Your task to perform on an android device: read, delete, or share a saved page in the chrome app Image 0: 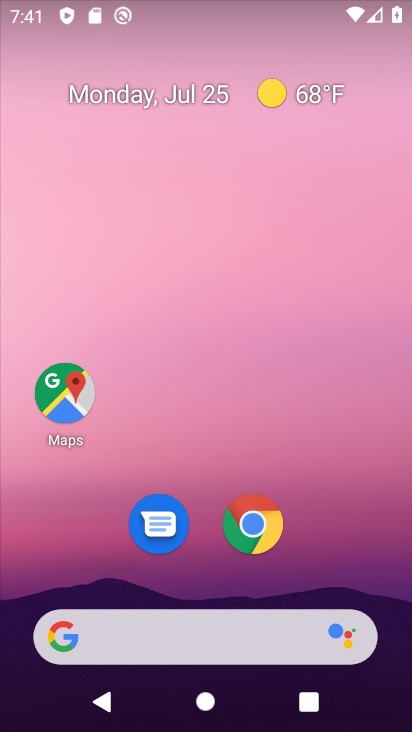
Step 0: click (261, 526)
Your task to perform on an android device: read, delete, or share a saved page in the chrome app Image 1: 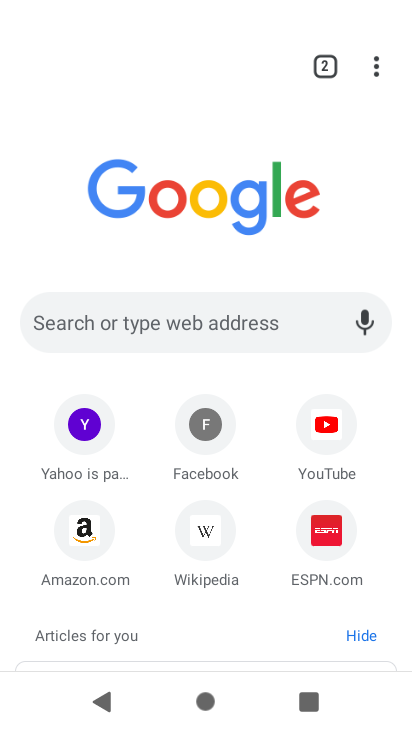
Step 1: click (375, 71)
Your task to perform on an android device: read, delete, or share a saved page in the chrome app Image 2: 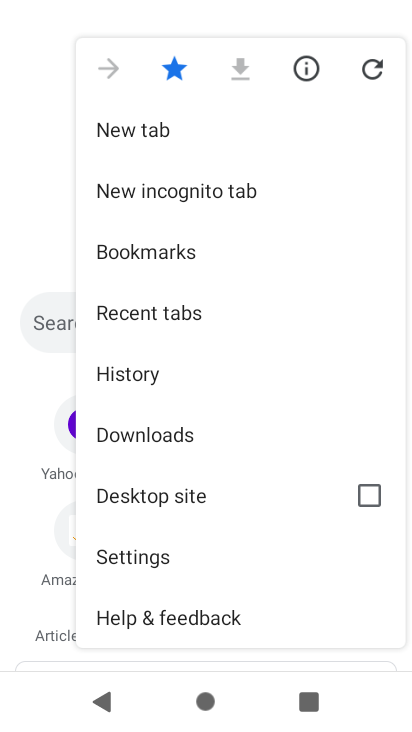
Step 2: click (176, 432)
Your task to perform on an android device: read, delete, or share a saved page in the chrome app Image 3: 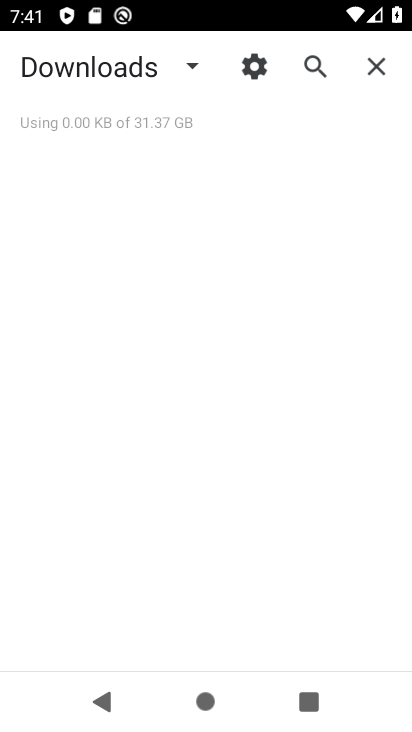
Step 3: task complete